Your task to perform on an android device: toggle notifications settings in the gmail app Image 0: 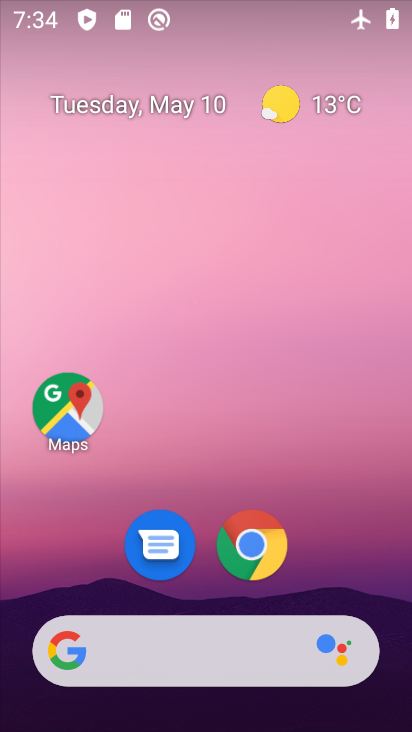
Step 0: drag from (206, 590) to (220, 67)
Your task to perform on an android device: toggle notifications settings in the gmail app Image 1: 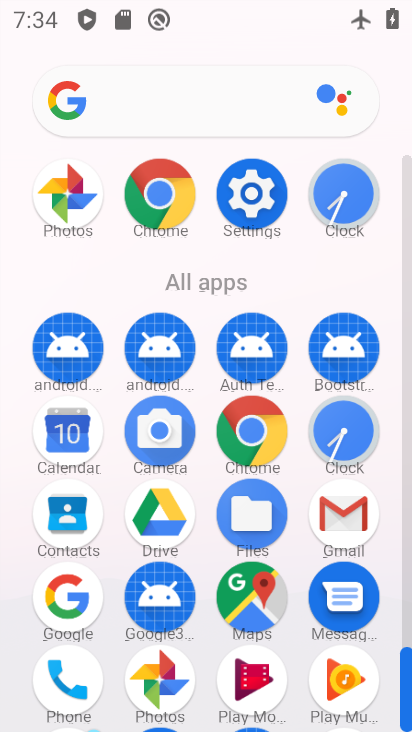
Step 1: click (338, 500)
Your task to perform on an android device: toggle notifications settings in the gmail app Image 2: 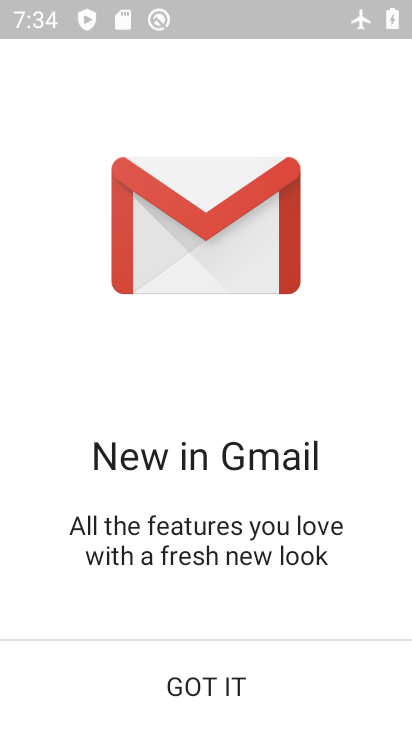
Step 2: click (213, 698)
Your task to perform on an android device: toggle notifications settings in the gmail app Image 3: 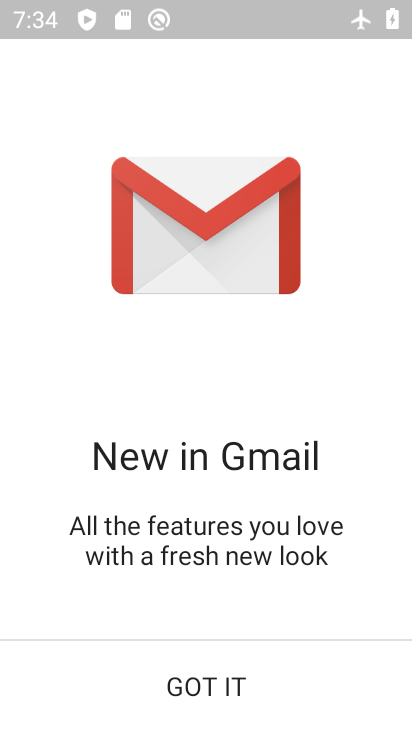
Step 3: click (213, 689)
Your task to perform on an android device: toggle notifications settings in the gmail app Image 4: 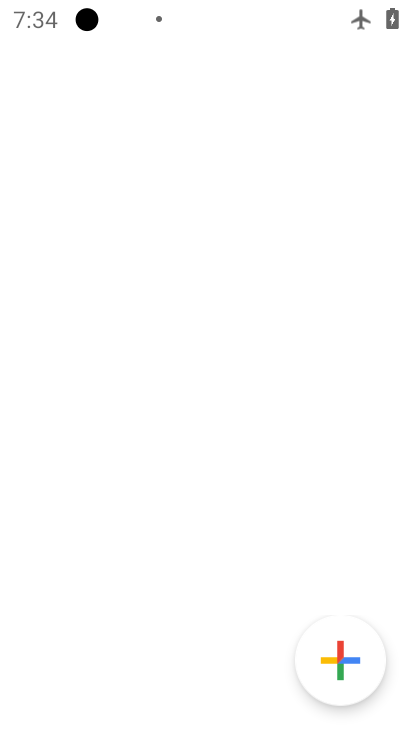
Step 4: click (197, 684)
Your task to perform on an android device: toggle notifications settings in the gmail app Image 5: 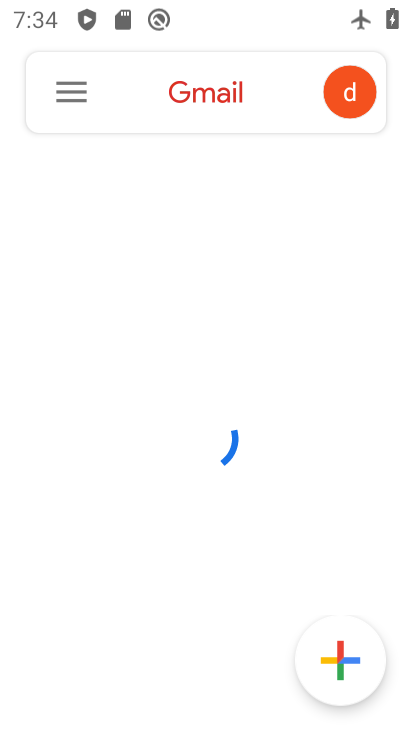
Step 5: click (46, 87)
Your task to perform on an android device: toggle notifications settings in the gmail app Image 6: 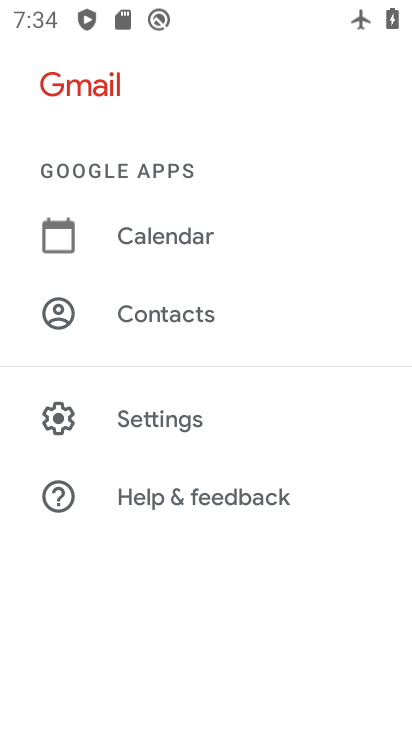
Step 6: drag from (153, 512) to (160, 137)
Your task to perform on an android device: toggle notifications settings in the gmail app Image 7: 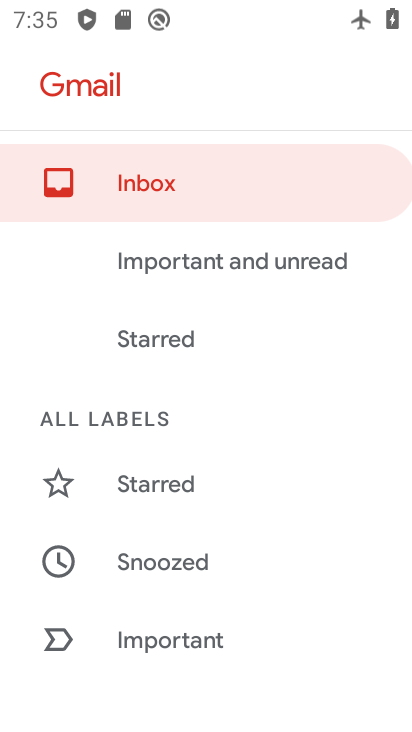
Step 7: click (156, 413)
Your task to perform on an android device: toggle notifications settings in the gmail app Image 8: 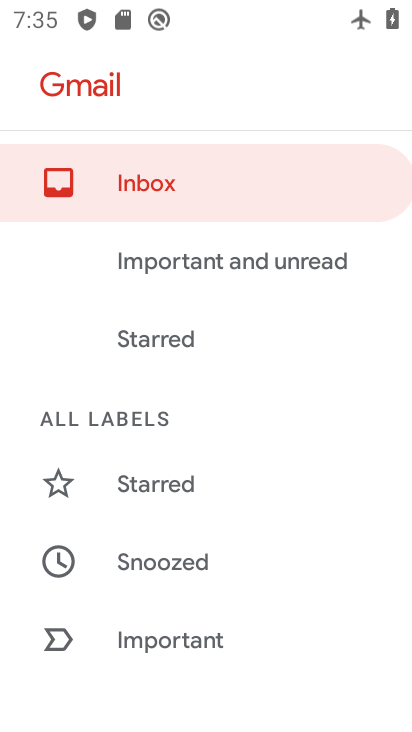
Step 8: drag from (131, 613) to (142, 233)
Your task to perform on an android device: toggle notifications settings in the gmail app Image 9: 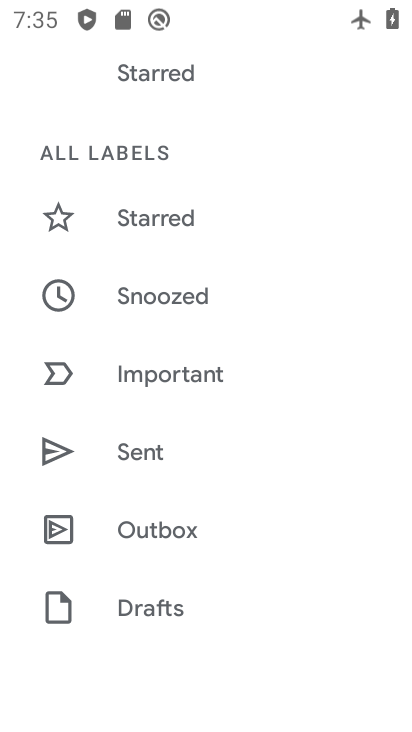
Step 9: click (142, 125)
Your task to perform on an android device: toggle notifications settings in the gmail app Image 10: 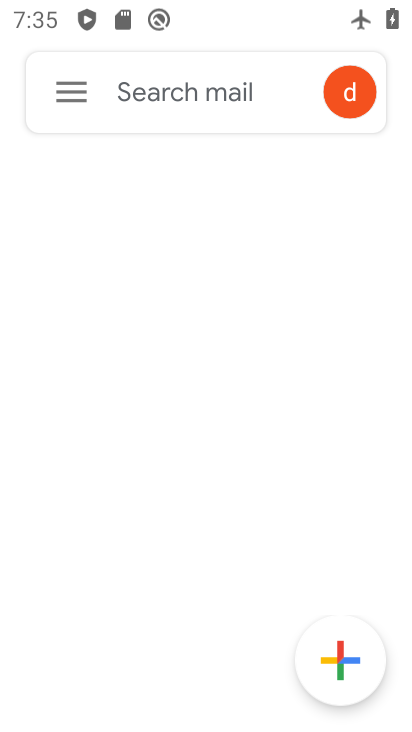
Step 10: drag from (155, 562) to (161, 276)
Your task to perform on an android device: toggle notifications settings in the gmail app Image 11: 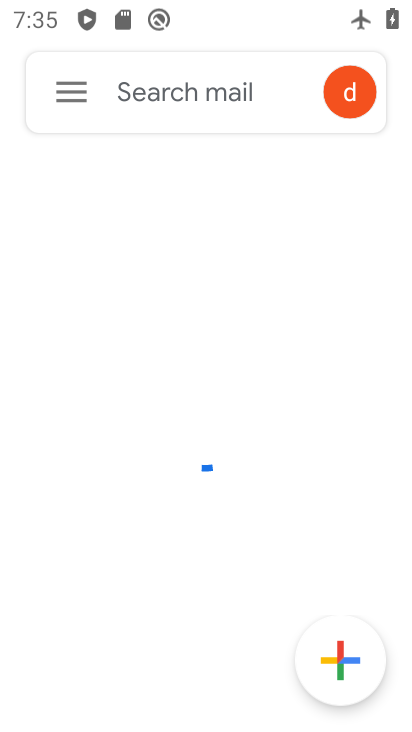
Step 11: click (58, 93)
Your task to perform on an android device: toggle notifications settings in the gmail app Image 12: 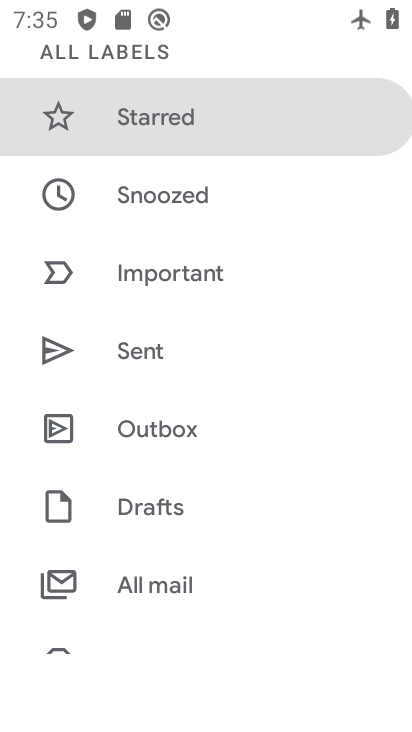
Step 12: drag from (164, 578) to (180, 147)
Your task to perform on an android device: toggle notifications settings in the gmail app Image 13: 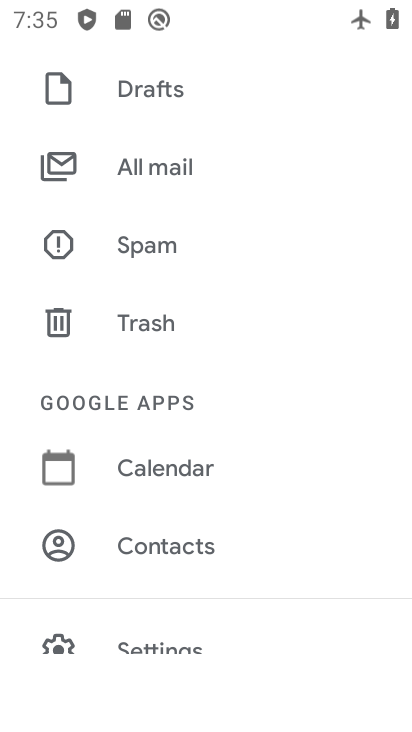
Step 13: drag from (181, 577) to (183, 191)
Your task to perform on an android device: toggle notifications settings in the gmail app Image 14: 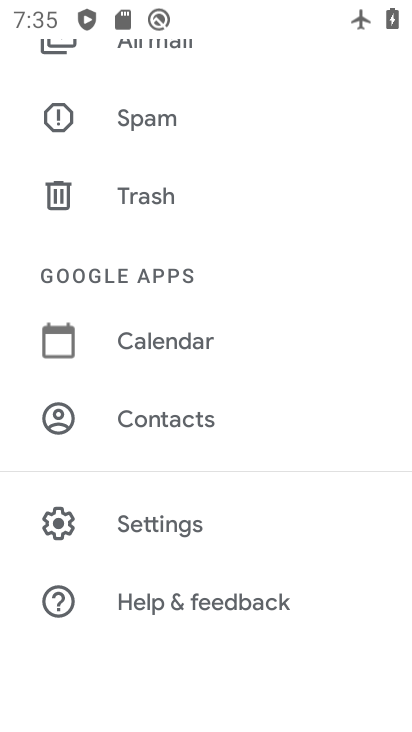
Step 14: click (163, 517)
Your task to perform on an android device: toggle notifications settings in the gmail app Image 15: 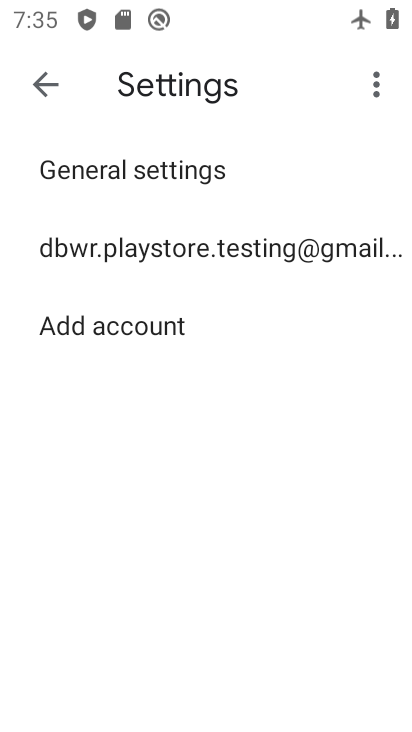
Step 15: click (157, 164)
Your task to perform on an android device: toggle notifications settings in the gmail app Image 16: 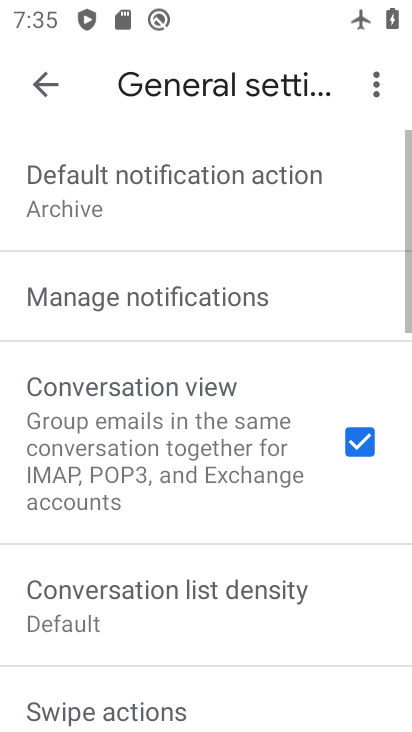
Step 16: click (235, 286)
Your task to perform on an android device: toggle notifications settings in the gmail app Image 17: 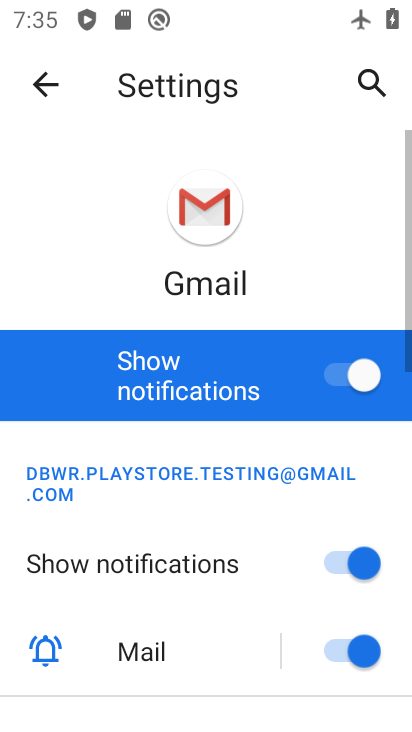
Step 17: click (345, 375)
Your task to perform on an android device: toggle notifications settings in the gmail app Image 18: 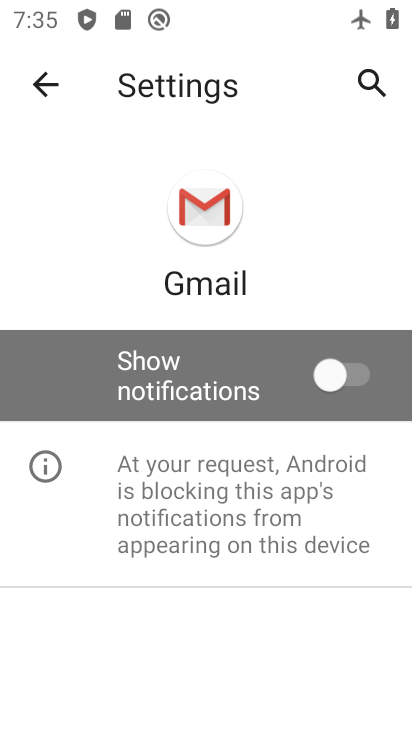
Step 18: task complete